Your task to perform on an android device: turn on location history Image 0: 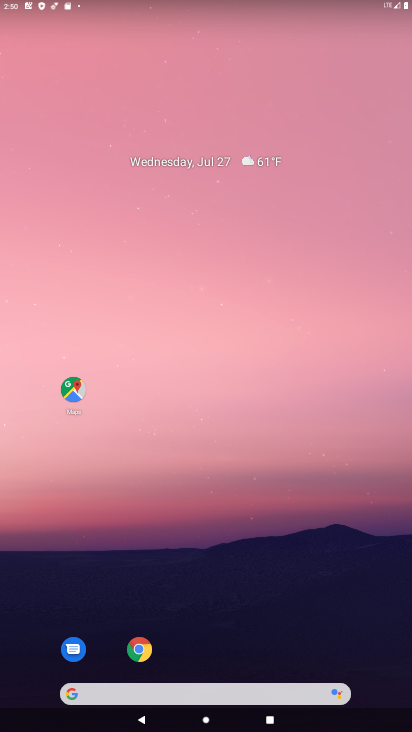
Step 0: click (201, 102)
Your task to perform on an android device: turn on location history Image 1: 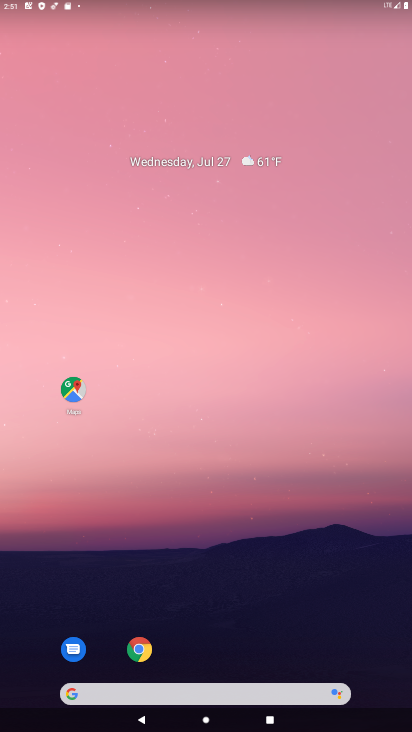
Step 1: drag from (173, 631) to (214, 56)
Your task to perform on an android device: turn on location history Image 2: 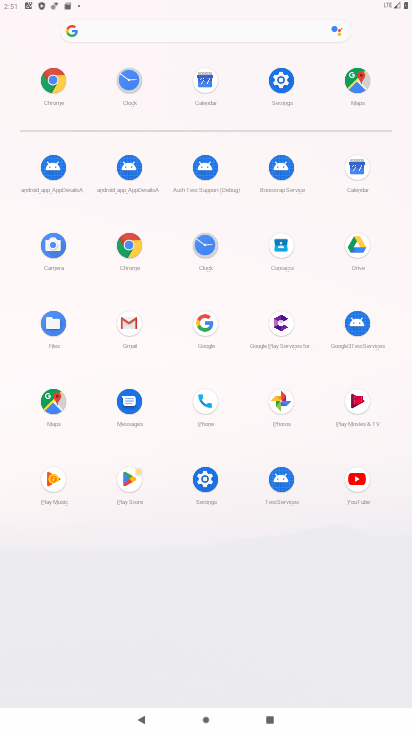
Step 2: click (285, 94)
Your task to perform on an android device: turn on location history Image 3: 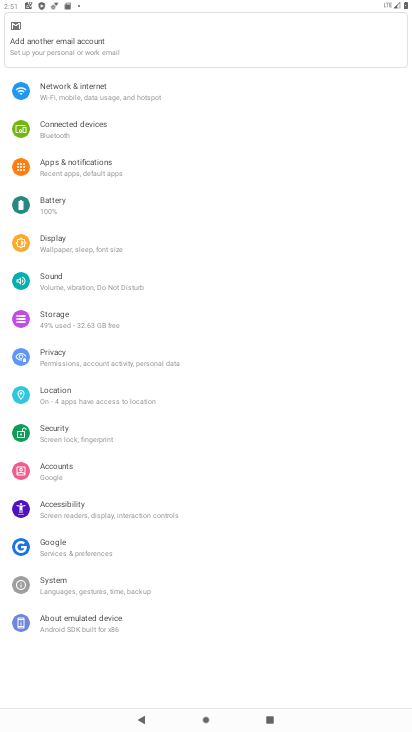
Step 3: click (50, 381)
Your task to perform on an android device: turn on location history Image 4: 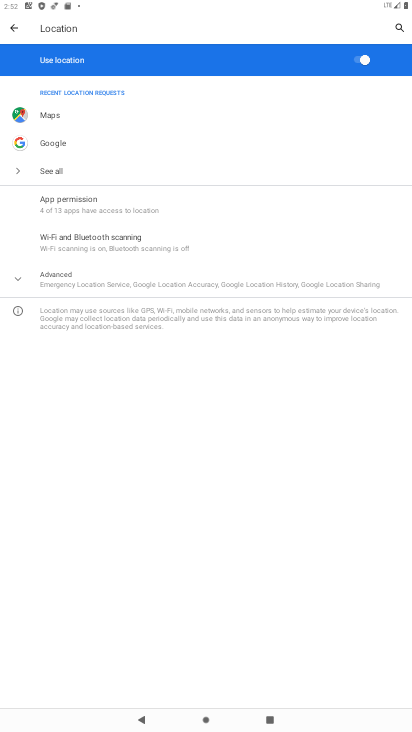
Step 4: click (55, 283)
Your task to perform on an android device: turn on location history Image 5: 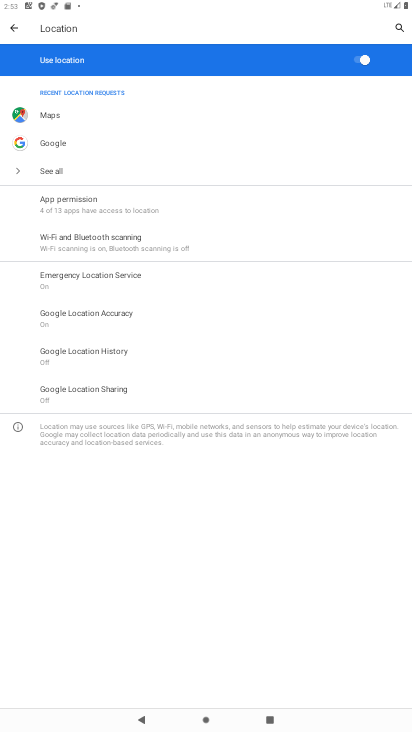
Step 5: click (71, 357)
Your task to perform on an android device: turn on location history Image 6: 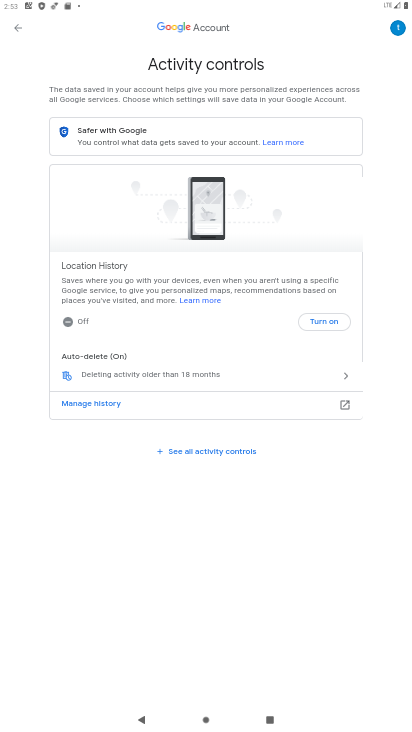
Step 6: click (312, 325)
Your task to perform on an android device: turn on location history Image 7: 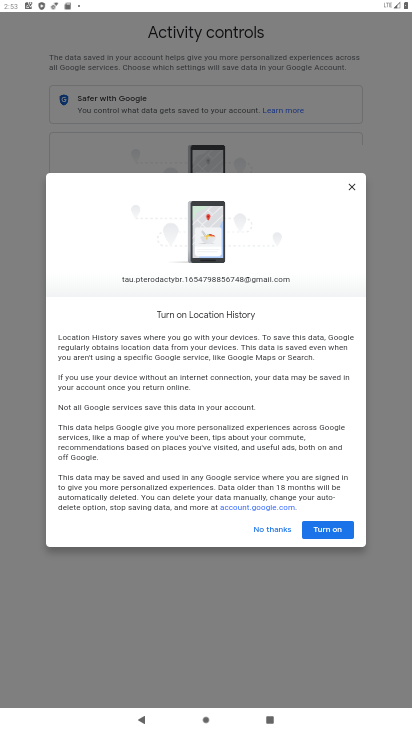
Step 7: click (317, 536)
Your task to perform on an android device: turn on location history Image 8: 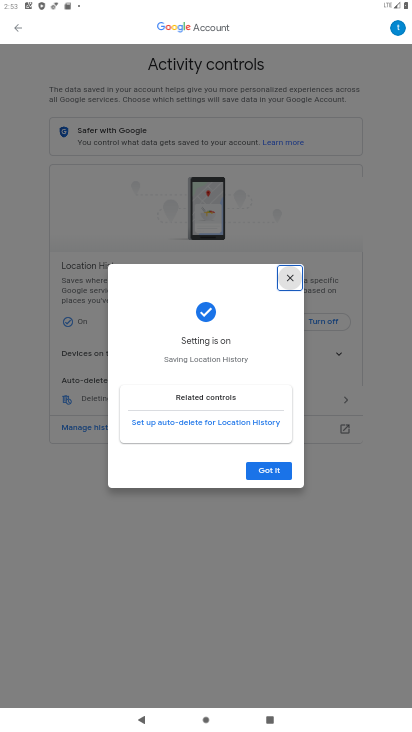
Step 8: click (268, 477)
Your task to perform on an android device: turn on location history Image 9: 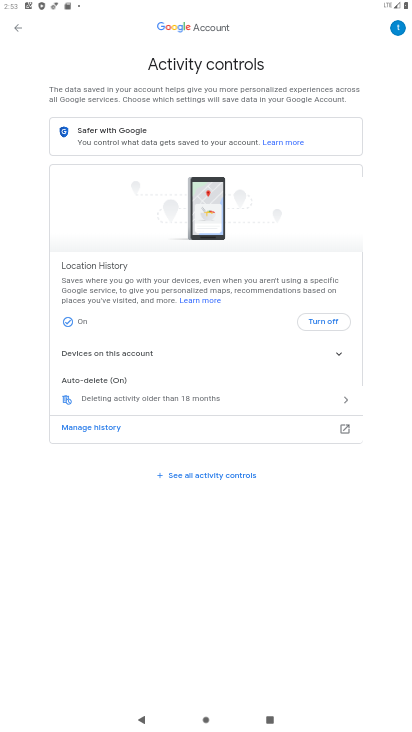
Step 9: task complete